Your task to perform on an android device: Open the web browser Image 0: 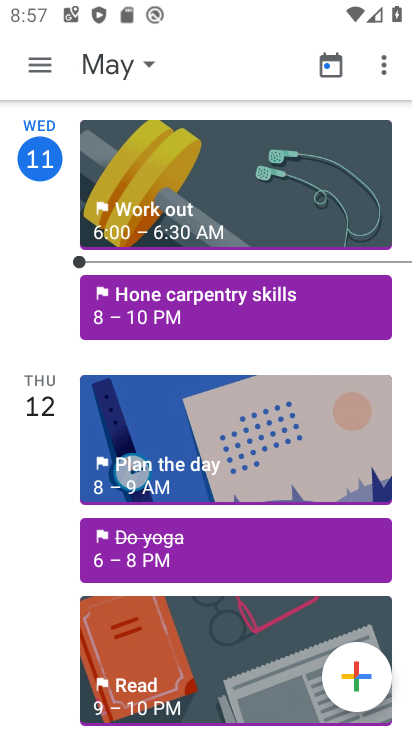
Step 0: press home button
Your task to perform on an android device: Open the web browser Image 1: 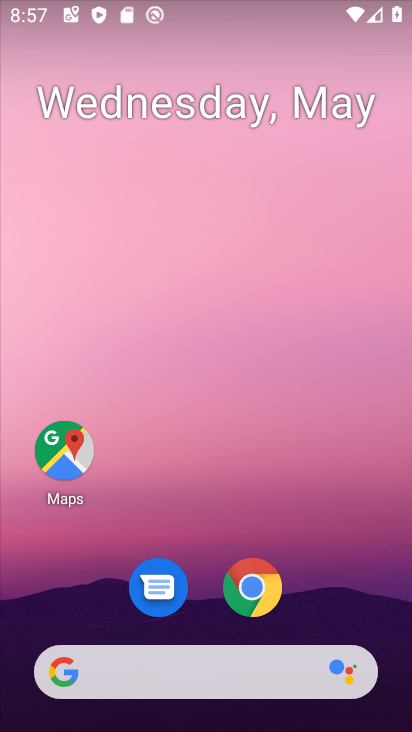
Step 1: click (252, 590)
Your task to perform on an android device: Open the web browser Image 2: 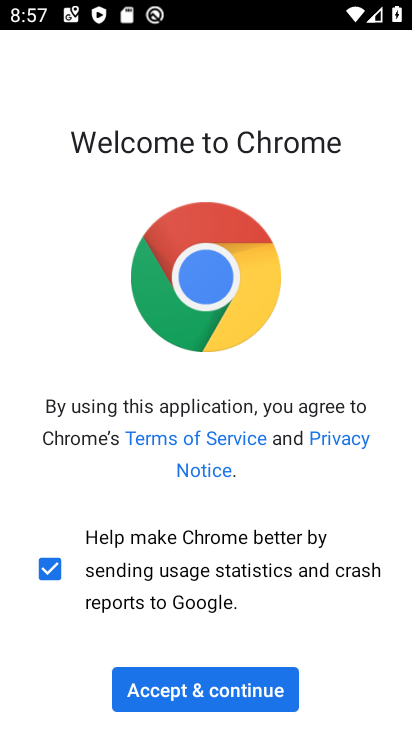
Step 2: click (217, 689)
Your task to perform on an android device: Open the web browser Image 3: 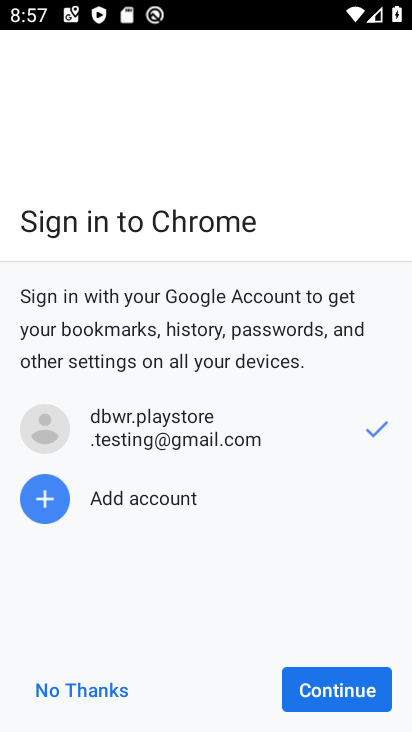
Step 3: click (300, 693)
Your task to perform on an android device: Open the web browser Image 4: 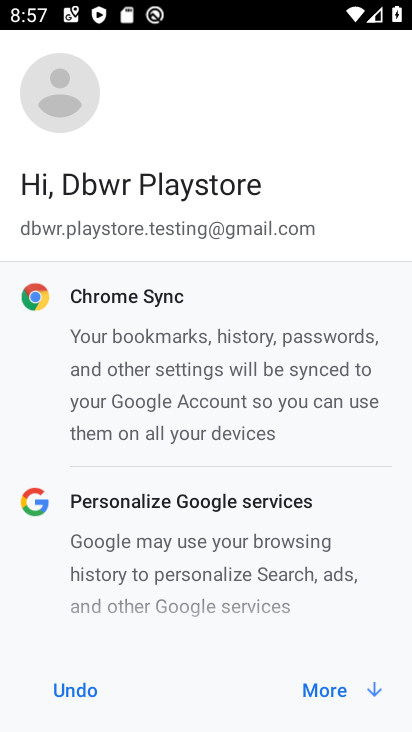
Step 4: click (332, 690)
Your task to perform on an android device: Open the web browser Image 5: 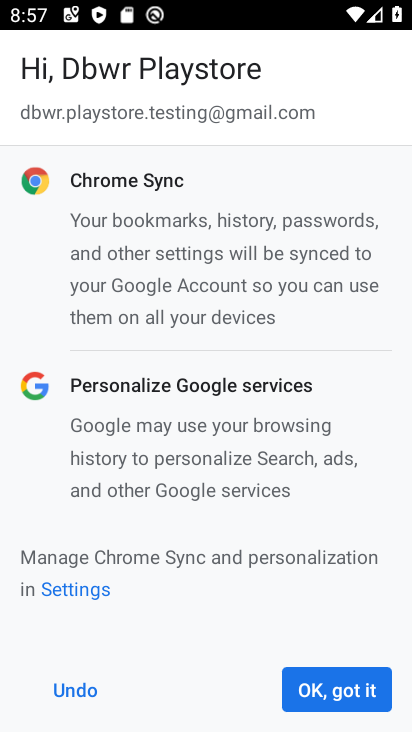
Step 5: click (339, 691)
Your task to perform on an android device: Open the web browser Image 6: 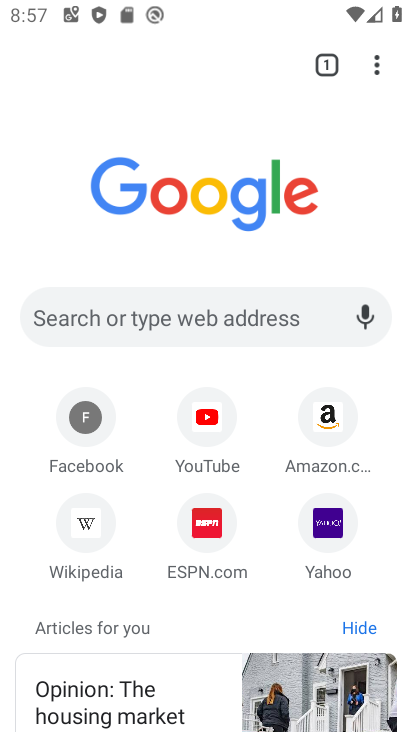
Step 6: task complete